Your task to perform on an android device: turn notification dots on Image 0: 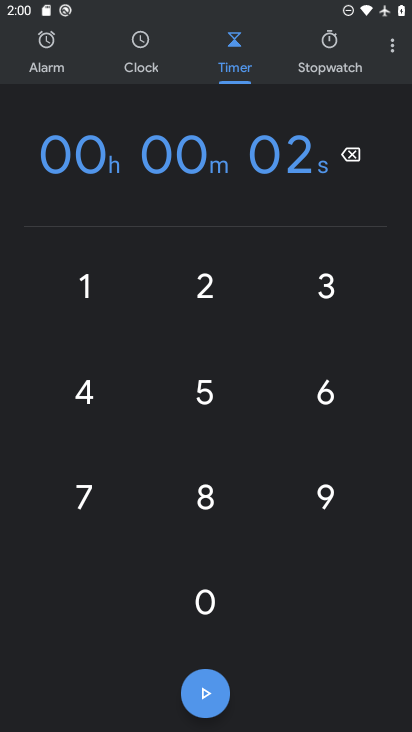
Step 0: press home button
Your task to perform on an android device: turn notification dots on Image 1: 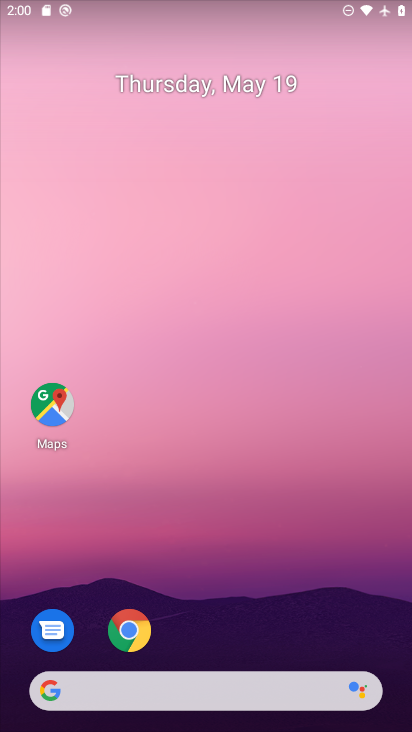
Step 1: drag from (206, 657) to (147, 57)
Your task to perform on an android device: turn notification dots on Image 2: 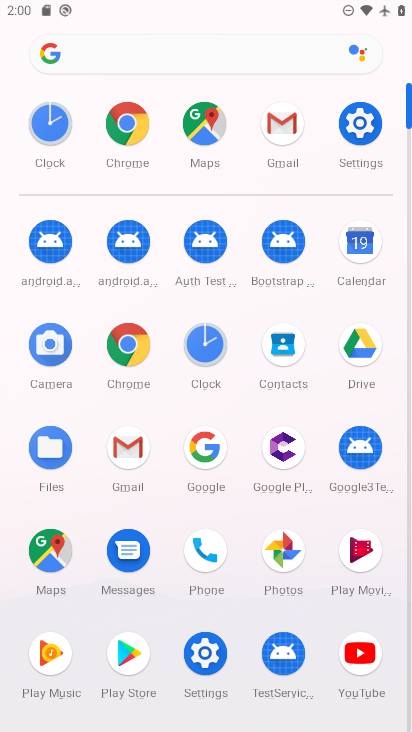
Step 2: click (359, 129)
Your task to perform on an android device: turn notification dots on Image 3: 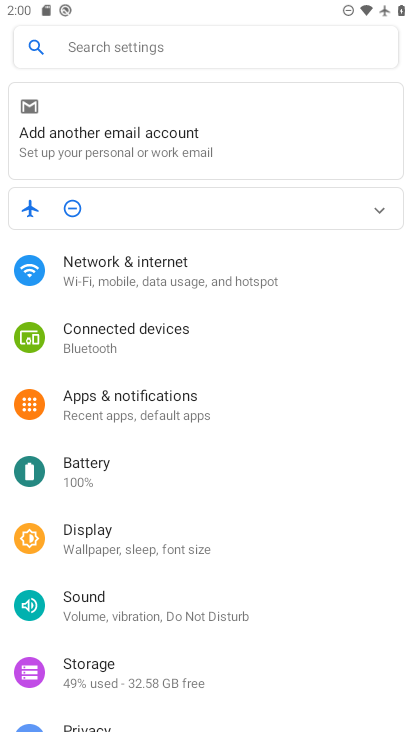
Step 3: click (110, 396)
Your task to perform on an android device: turn notification dots on Image 4: 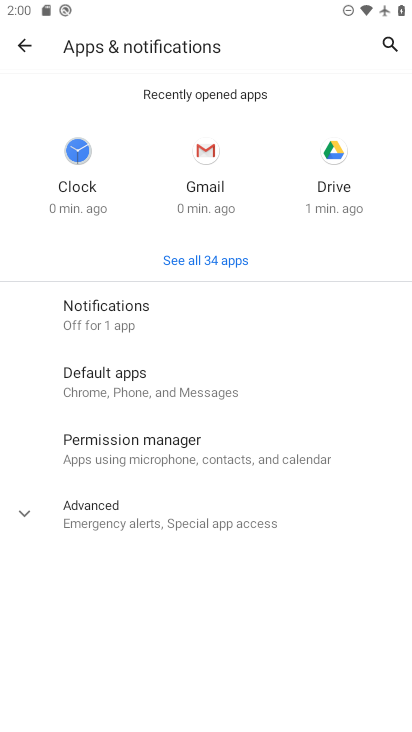
Step 4: click (114, 339)
Your task to perform on an android device: turn notification dots on Image 5: 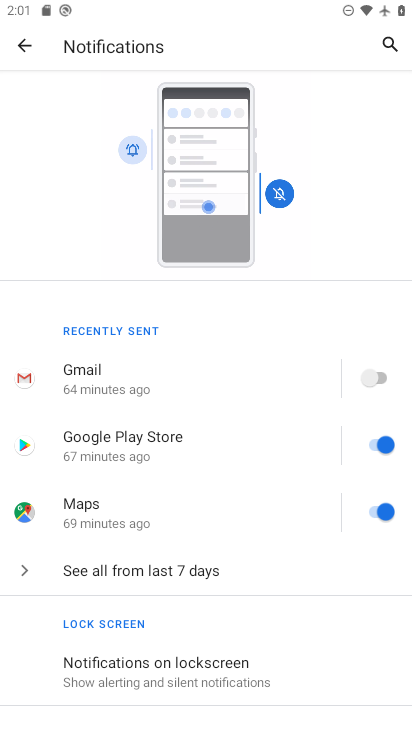
Step 5: drag from (144, 677) to (115, 335)
Your task to perform on an android device: turn notification dots on Image 6: 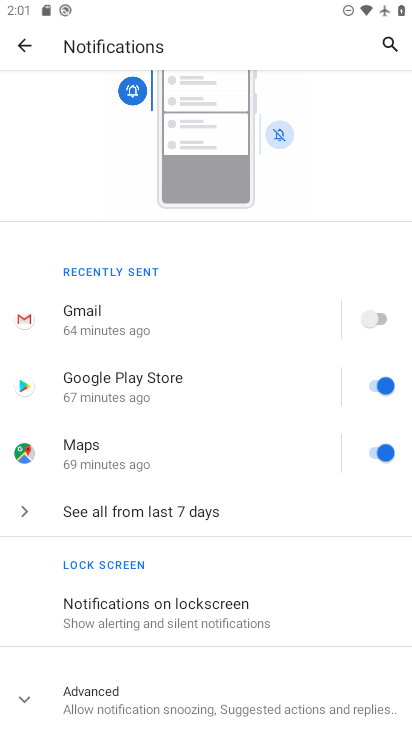
Step 6: click (150, 703)
Your task to perform on an android device: turn notification dots on Image 7: 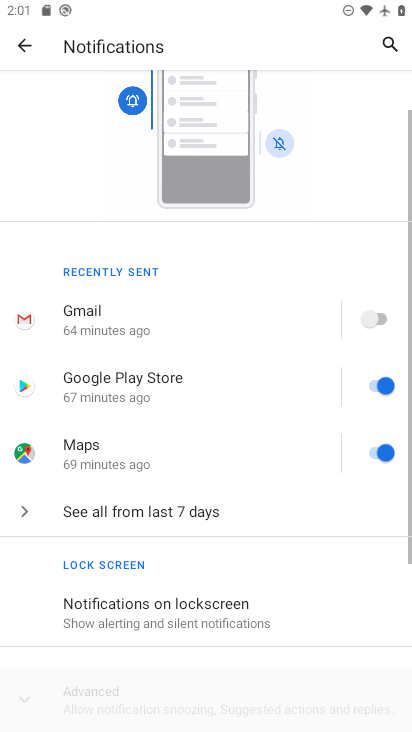
Step 7: drag from (151, 702) to (111, 261)
Your task to perform on an android device: turn notification dots on Image 8: 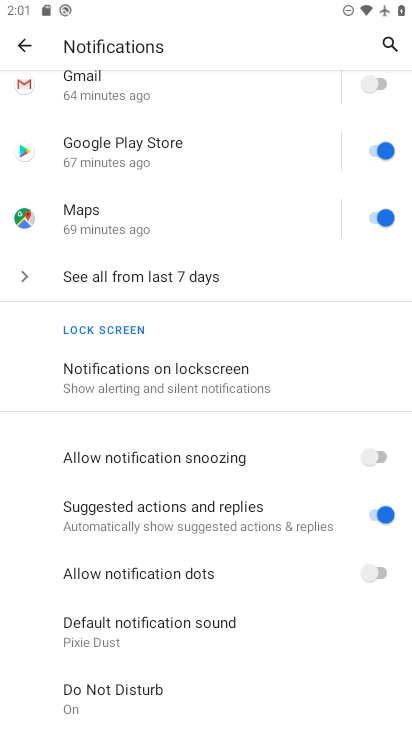
Step 8: click (380, 575)
Your task to perform on an android device: turn notification dots on Image 9: 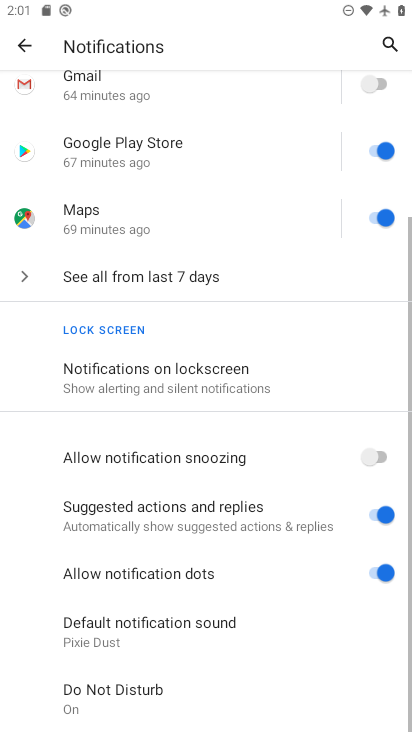
Step 9: task complete